Your task to perform on an android device: What's on my calendar today? Image 0: 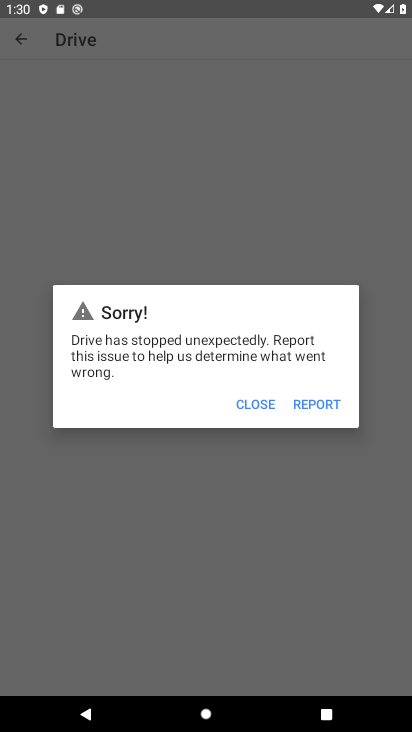
Step 0: press home button
Your task to perform on an android device: What's on my calendar today? Image 1: 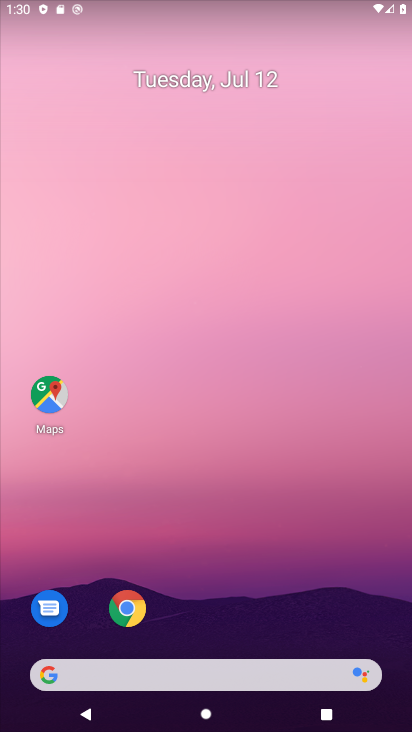
Step 1: click (256, 602)
Your task to perform on an android device: What's on my calendar today? Image 2: 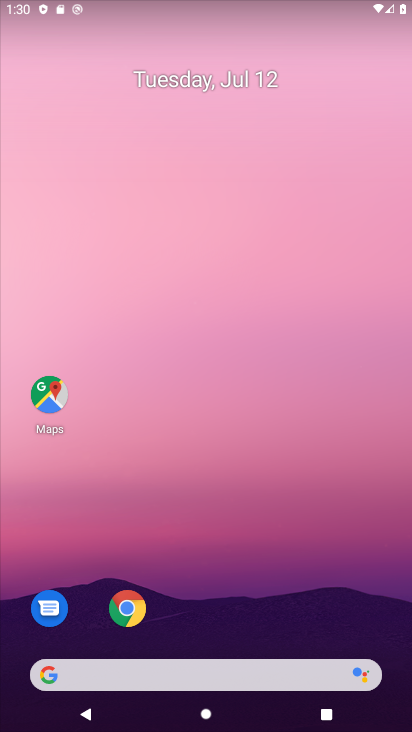
Step 2: drag from (265, 592) to (219, 1)
Your task to perform on an android device: What's on my calendar today? Image 3: 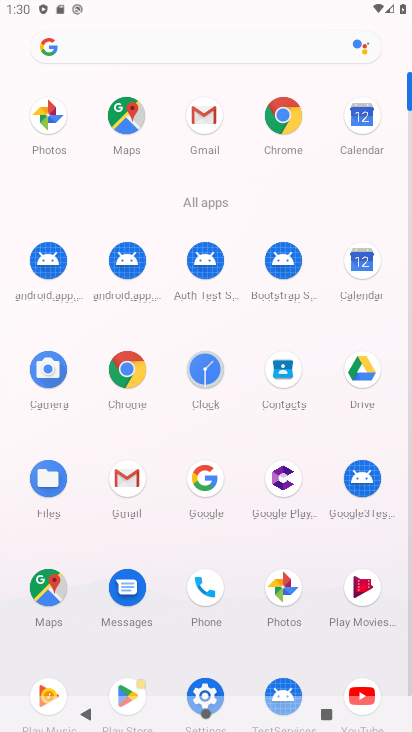
Step 3: click (368, 252)
Your task to perform on an android device: What's on my calendar today? Image 4: 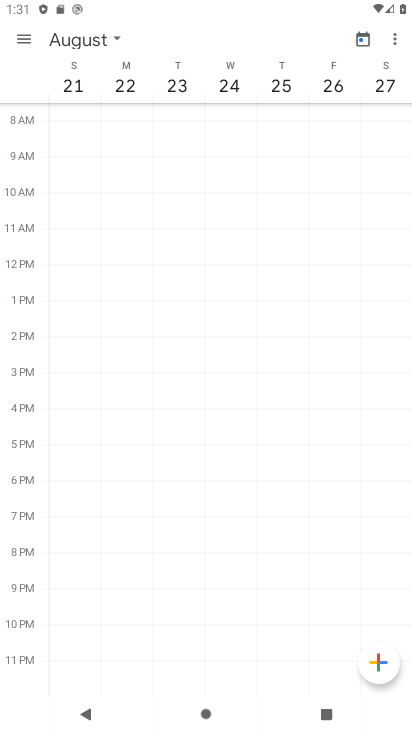
Step 4: click (19, 33)
Your task to perform on an android device: What's on my calendar today? Image 5: 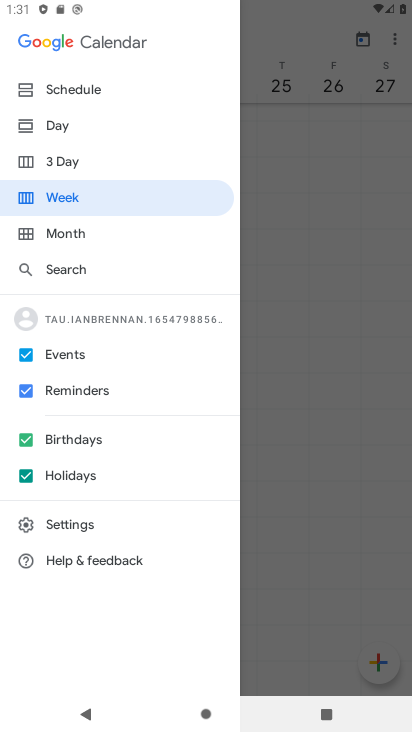
Step 5: click (63, 110)
Your task to perform on an android device: What's on my calendar today? Image 6: 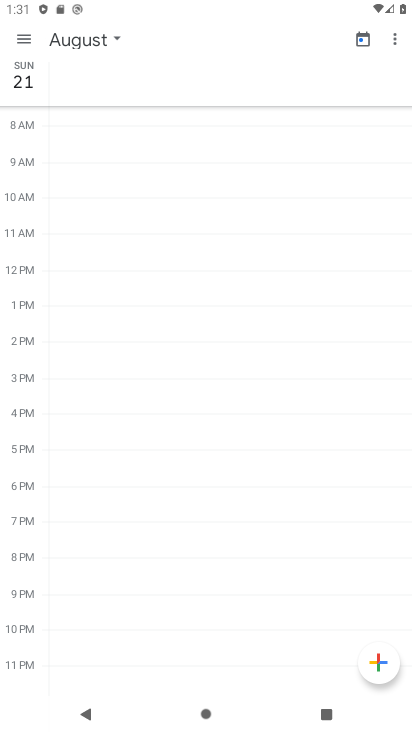
Step 6: click (116, 38)
Your task to perform on an android device: What's on my calendar today? Image 7: 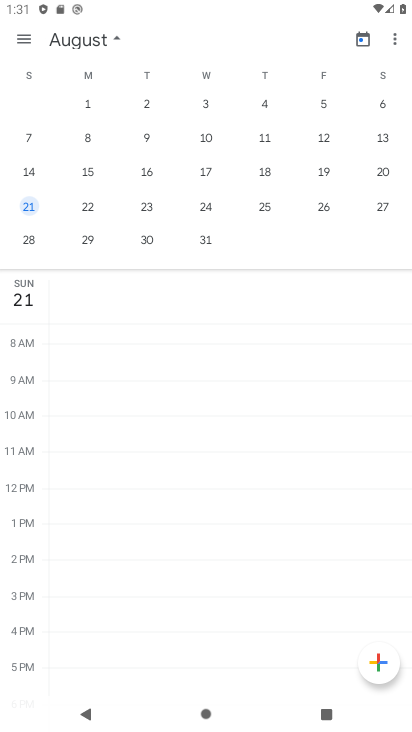
Step 7: drag from (39, 152) to (411, 146)
Your task to perform on an android device: What's on my calendar today? Image 8: 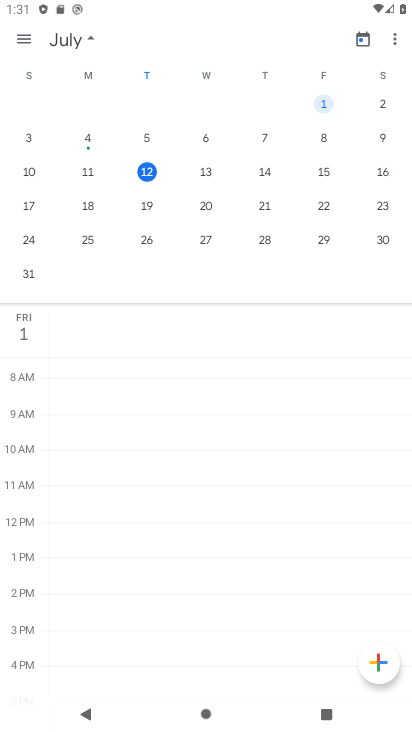
Step 8: click (152, 168)
Your task to perform on an android device: What's on my calendar today? Image 9: 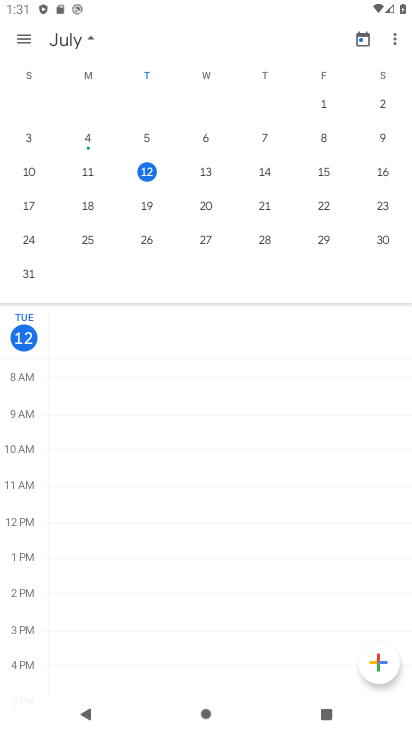
Step 9: task complete